Your task to perform on an android device: add a contact in the contacts app Image 0: 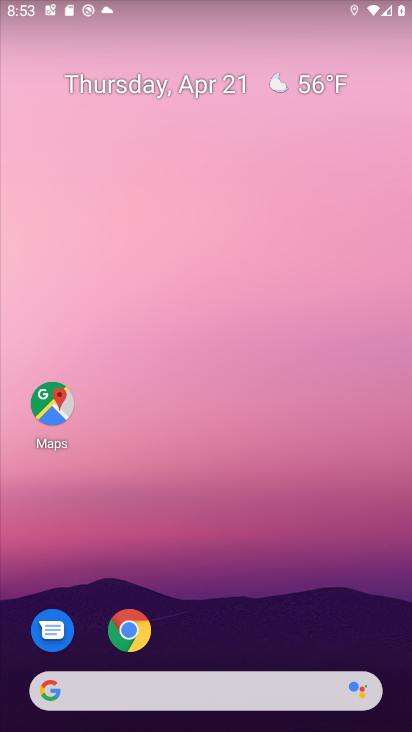
Step 0: click (247, 279)
Your task to perform on an android device: add a contact in the contacts app Image 1: 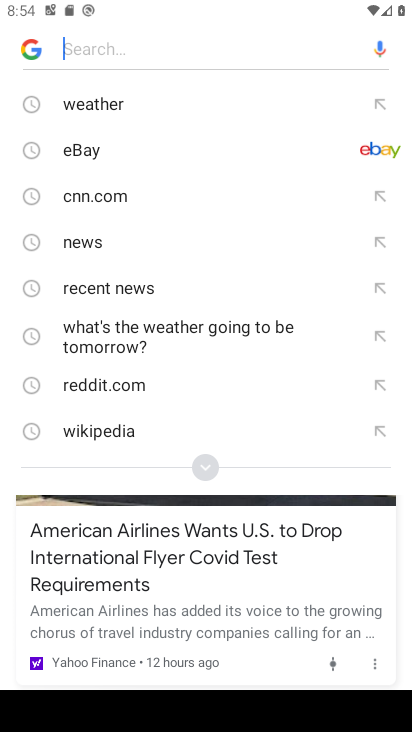
Step 1: press home button
Your task to perform on an android device: add a contact in the contacts app Image 2: 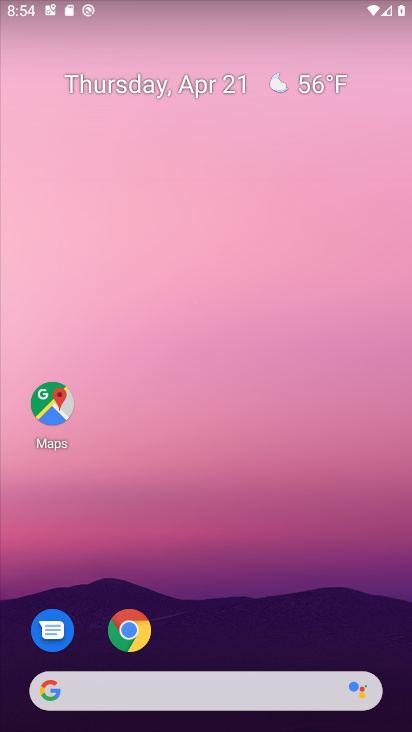
Step 2: drag from (206, 548) to (201, 11)
Your task to perform on an android device: add a contact in the contacts app Image 3: 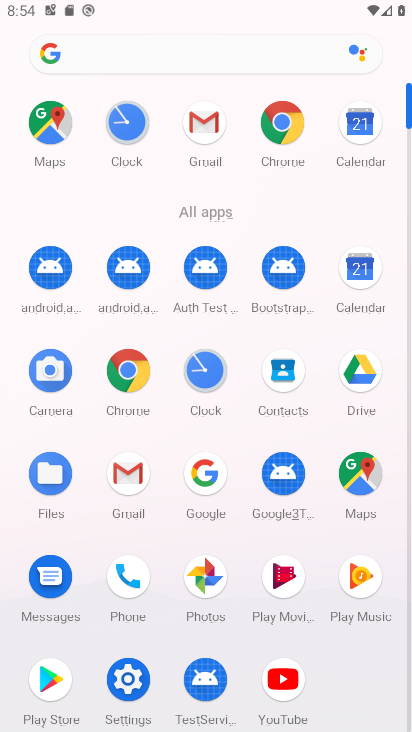
Step 3: click (282, 387)
Your task to perform on an android device: add a contact in the contacts app Image 4: 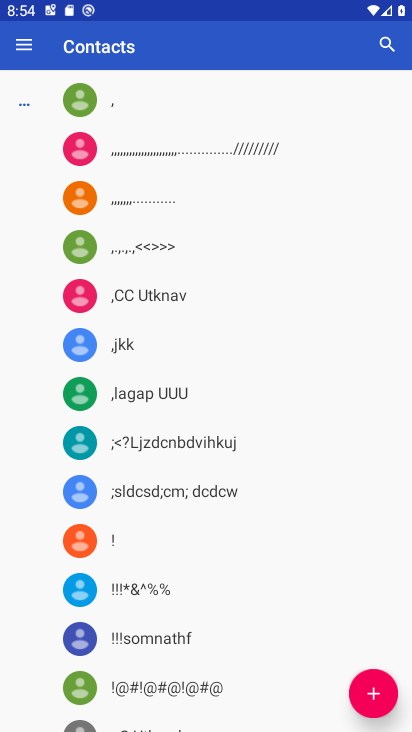
Step 4: click (367, 696)
Your task to perform on an android device: add a contact in the contacts app Image 5: 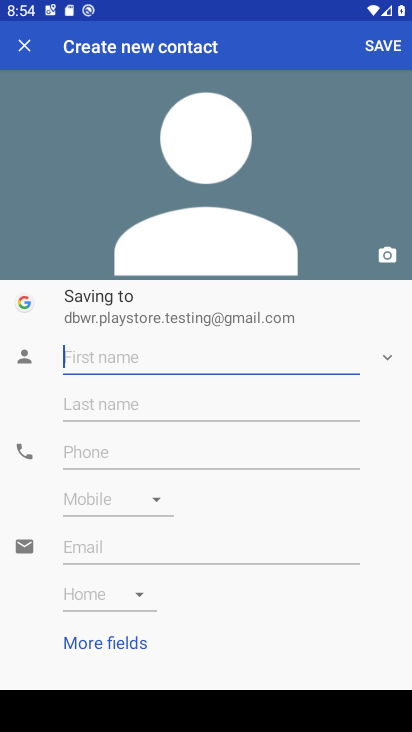
Step 5: type "aaamaan"
Your task to perform on an android device: add a contact in the contacts app Image 6: 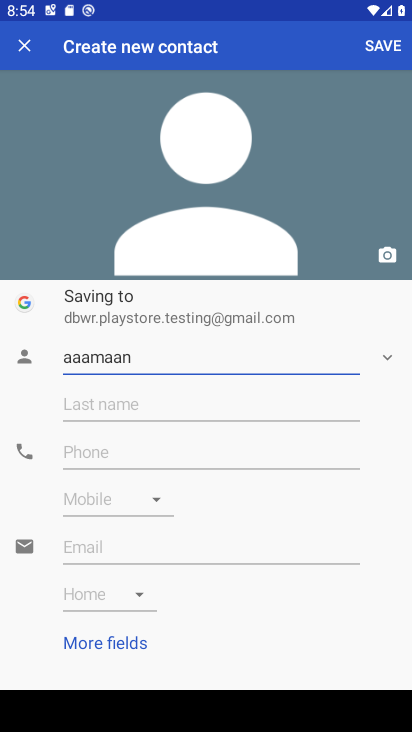
Step 6: click (386, 39)
Your task to perform on an android device: add a contact in the contacts app Image 7: 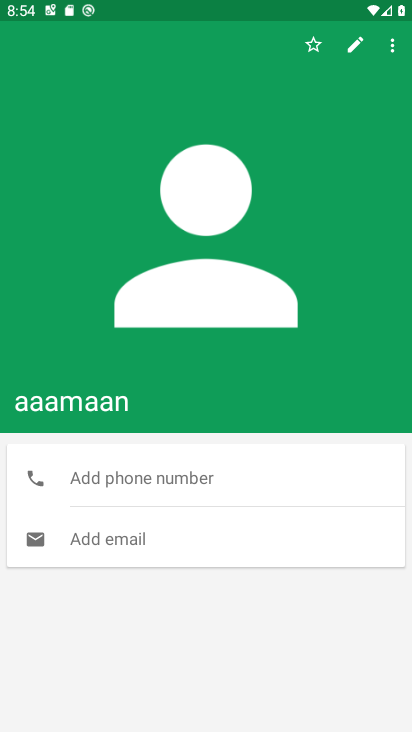
Step 7: task complete